Your task to perform on an android device: Go to privacy settings Image 0: 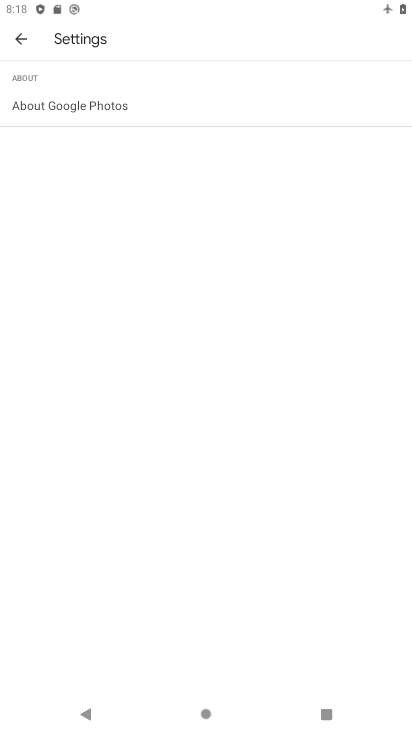
Step 0: press home button
Your task to perform on an android device: Go to privacy settings Image 1: 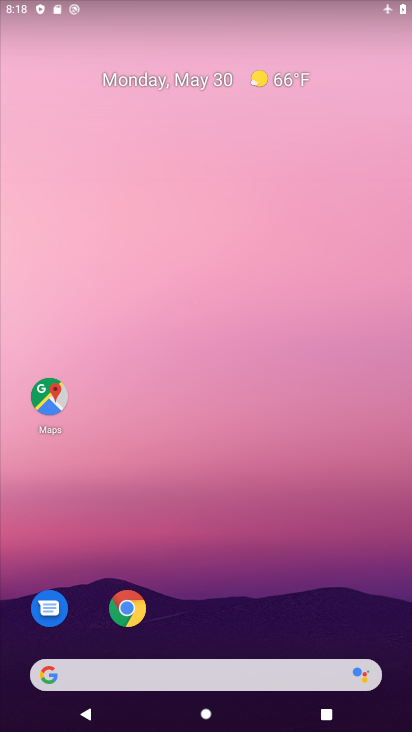
Step 1: drag from (231, 726) to (196, 65)
Your task to perform on an android device: Go to privacy settings Image 2: 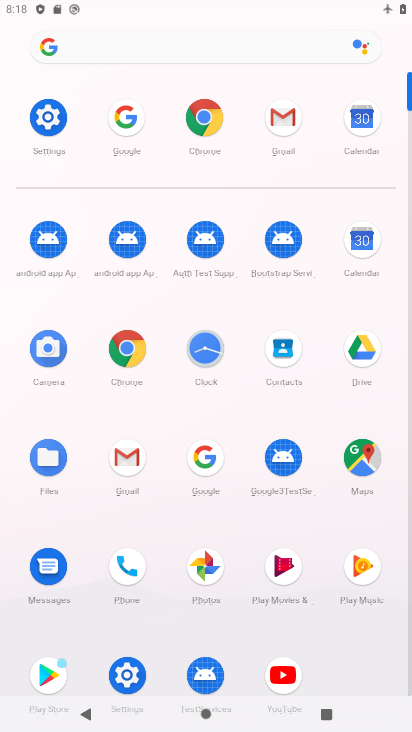
Step 2: click (45, 116)
Your task to perform on an android device: Go to privacy settings Image 3: 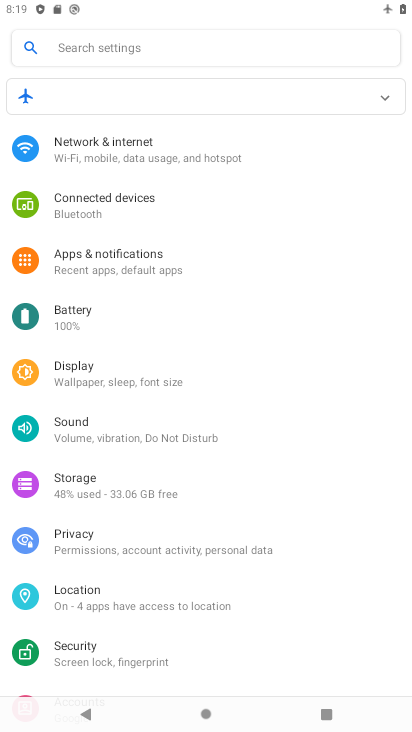
Step 3: click (69, 536)
Your task to perform on an android device: Go to privacy settings Image 4: 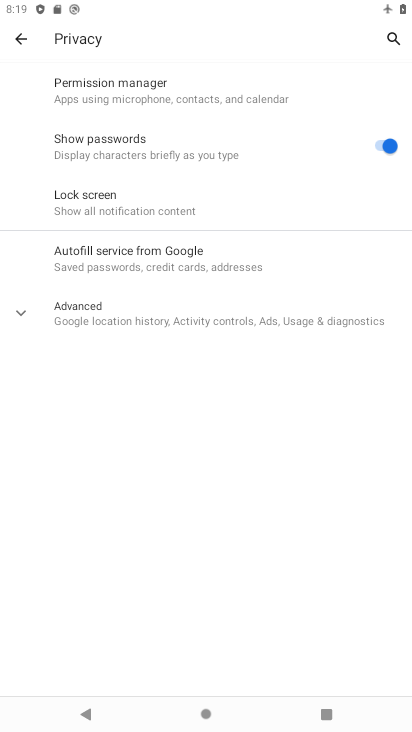
Step 4: task complete